Your task to perform on an android device: Open privacy settings Image 0: 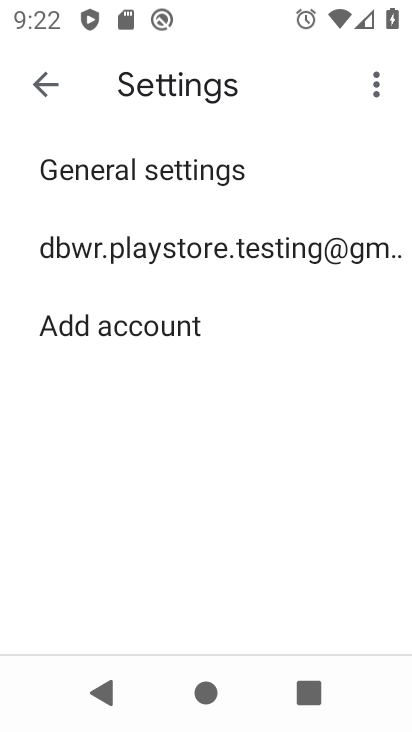
Step 0: drag from (373, 639) to (221, 131)
Your task to perform on an android device: Open privacy settings Image 1: 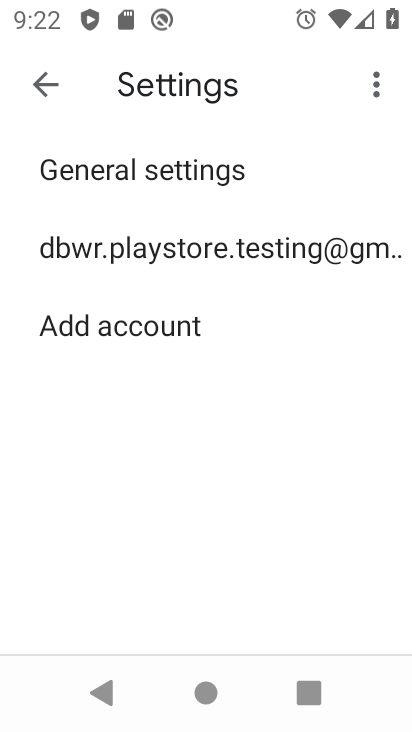
Step 1: click (33, 94)
Your task to perform on an android device: Open privacy settings Image 2: 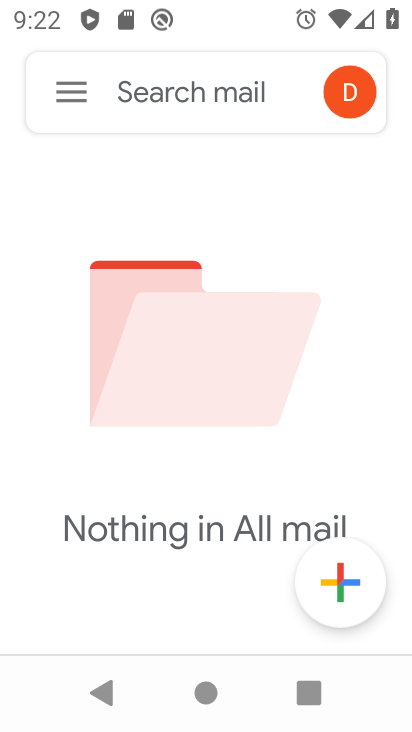
Step 2: press back button
Your task to perform on an android device: Open privacy settings Image 3: 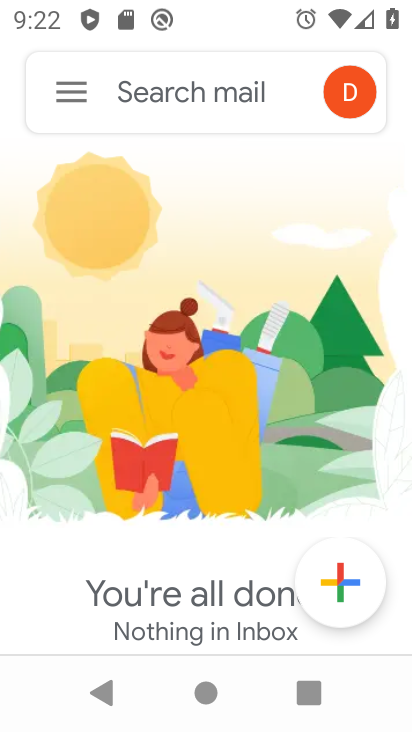
Step 3: press back button
Your task to perform on an android device: Open privacy settings Image 4: 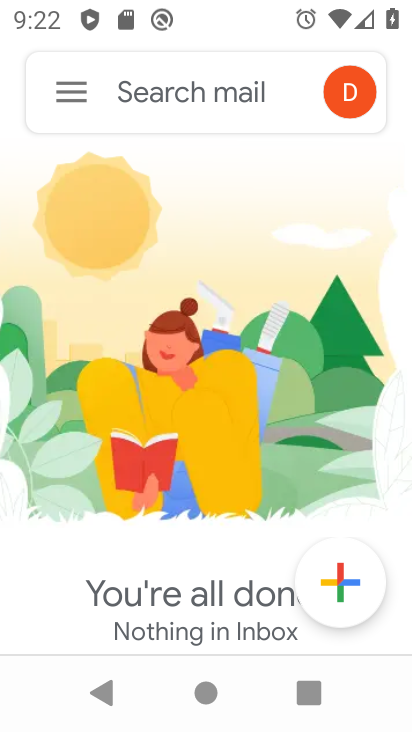
Step 4: press back button
Your task to perform on an android device: Open privacy settings Image 5: 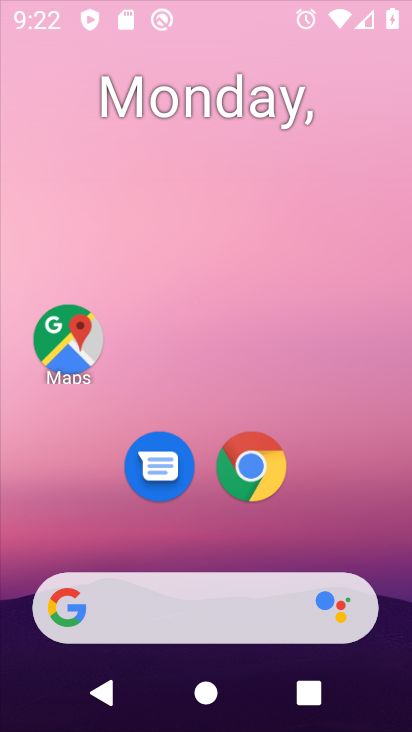
Step 5: press back button
Your task to perform on an android device: Open privacy settings Image 6: 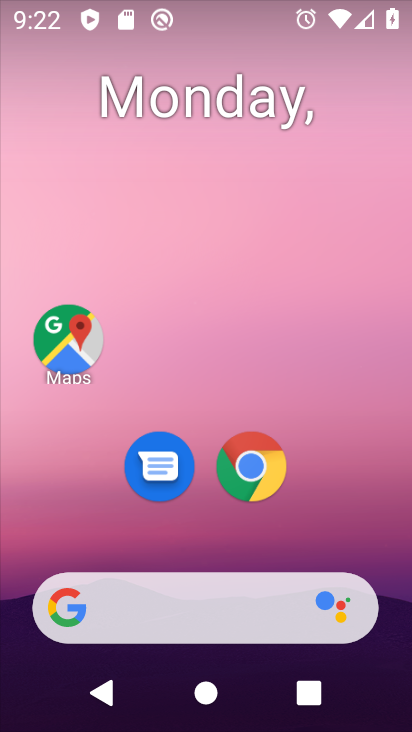
Step 6: press back button
Your task to perform on an android device: Open privacy settings Image 7: 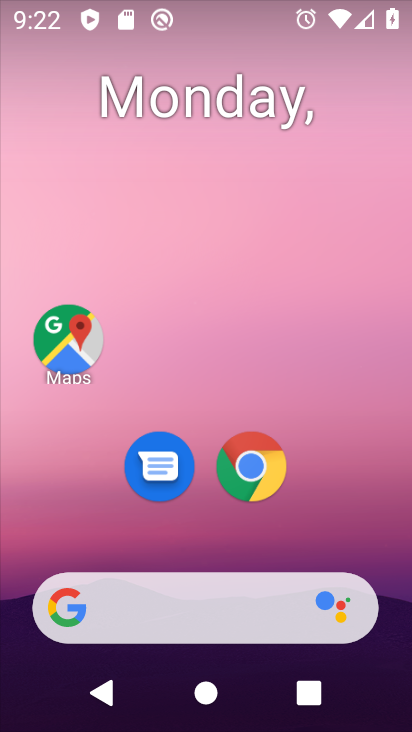
Step 7: drag from (375, 540) to (182, 0)
Your task to perform on an android device: Open privacy settings Image 8: 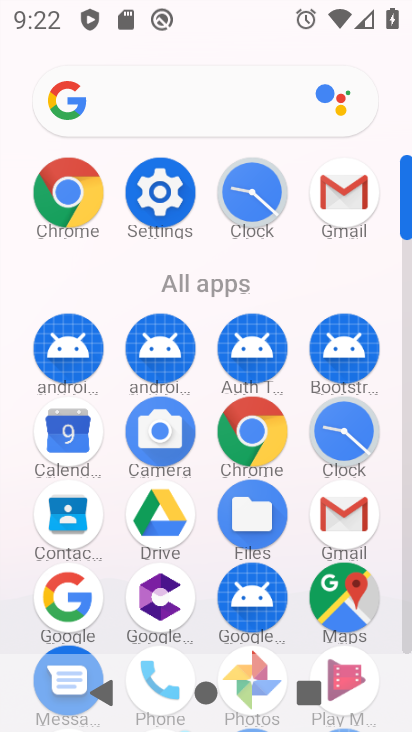
Step 8: click (167, 185)
Your task to perform on an android device: Open privacy settings Image 9: 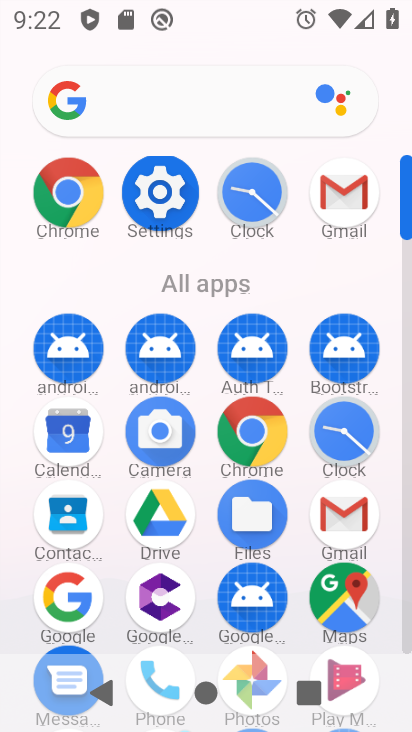
Step 9: click (167, 185)
Your task to perform on an android device: Open privacy settings Image 10: 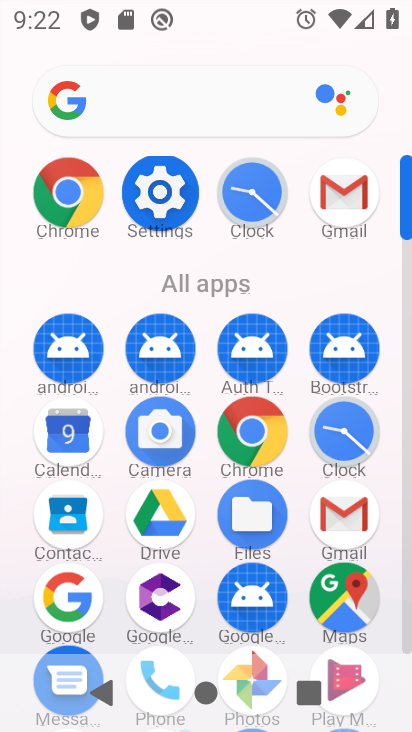
Step 10: click (167, 185)
Your task to perform on an android device: Open privacy settings Image 11: 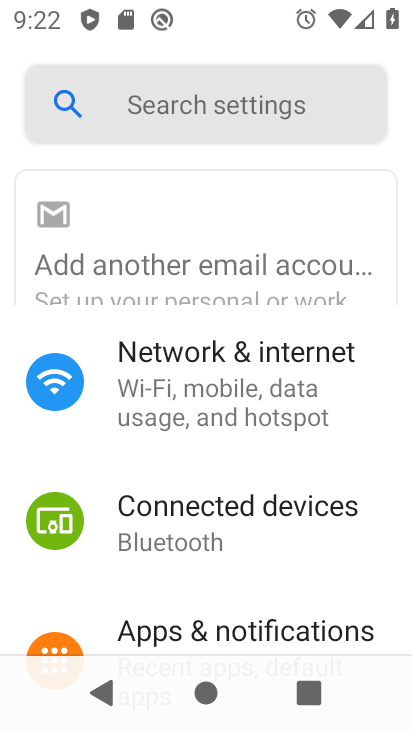
Step 11: click (167, 185)
Your task to perform on an android device: Open privacy settings Image 12: 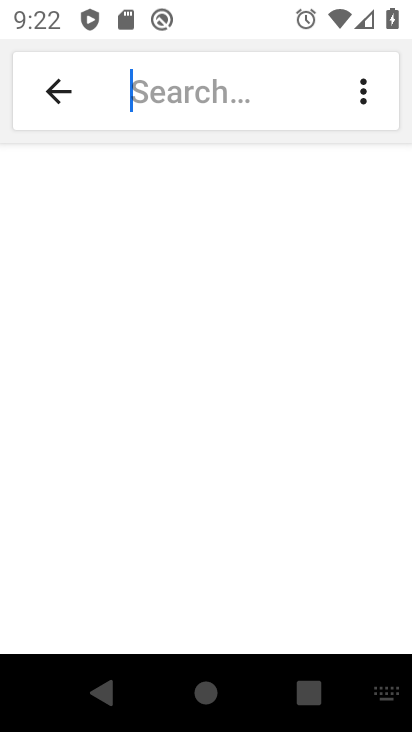
Step 12: click (40, 93)
Your task to perform on an android device: Open privacy settings Image 13: 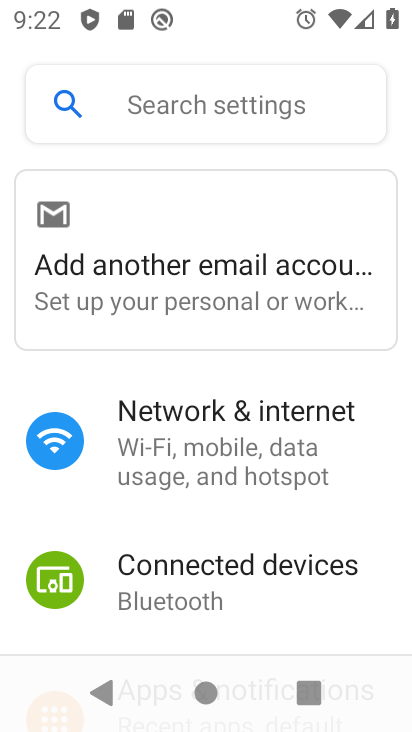
Step 13: drag from (232, 540) to (232, 206)
Your task to perform on an android device: Open privacy settings Image 14: 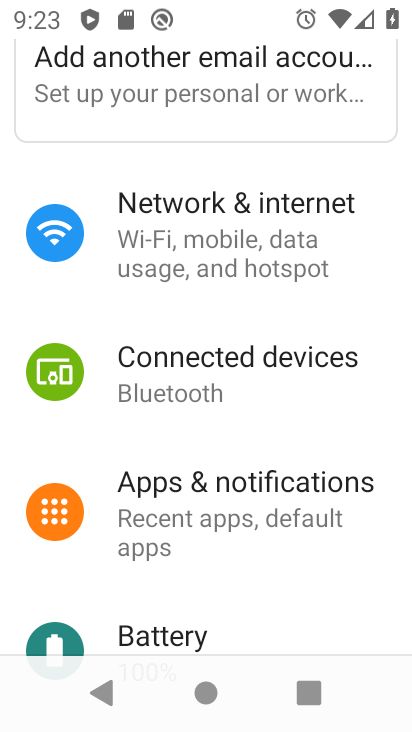
Step 14: drag from (198, 586) to (196, 79)
Your task to perform on an android device: Open privacy settings Image 15: 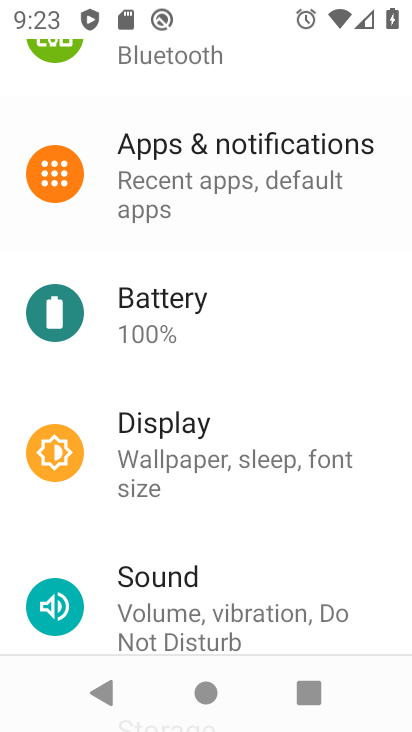
Step 15: drag from (287, 469) to (256, 269)
Your task to perform on an android device: Open privacy settings Image 16: 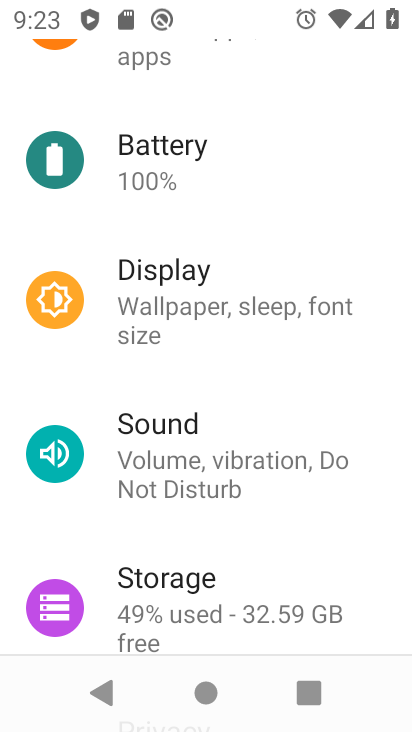
Step 16: drag from (207, 439) to (196, 132)
Your task to perform on an android device: Open privacy settings Image 17: 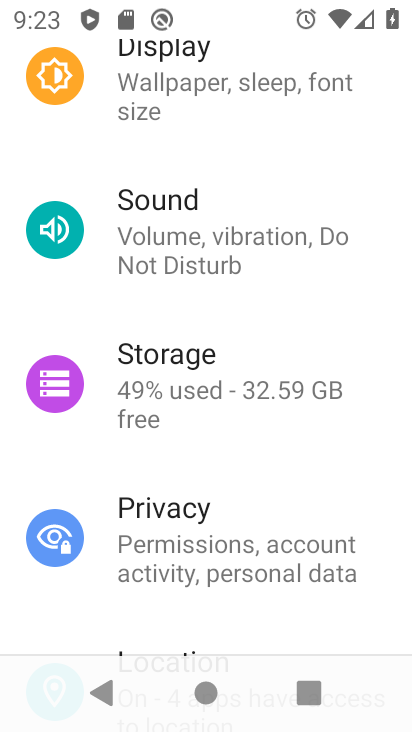
Step 17: click (235, 154)
Your task to perform on an android device: Open privacy settings Image 18: 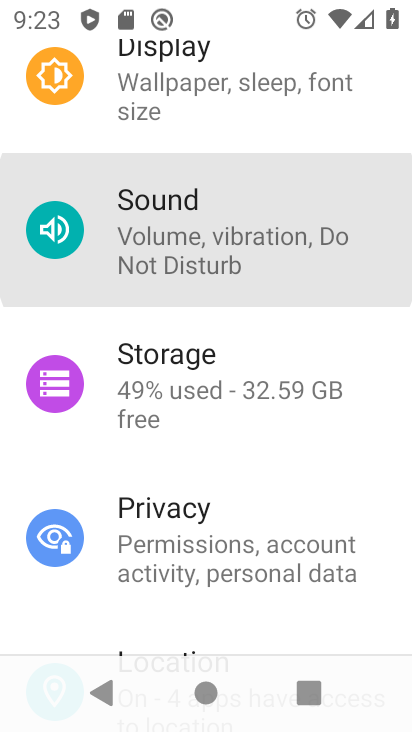
Step 18: drag from (262, 418) to (244, 142)
Your task to perform on an android device: Open privacy settings Image 19: 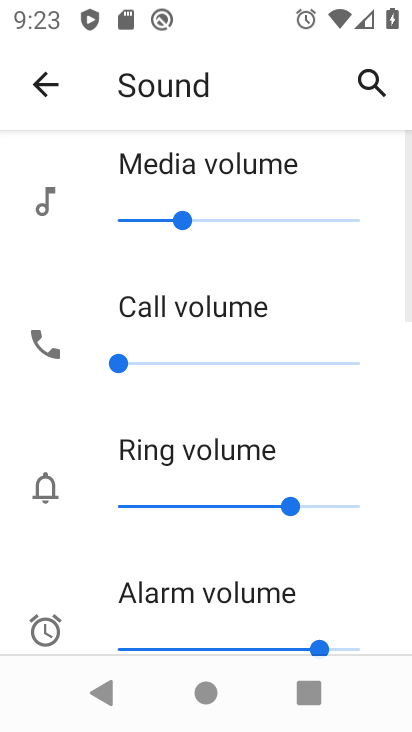
Step 19: click (49, 95)
Your task to perform on an android device: Open privacy settings Image 20: 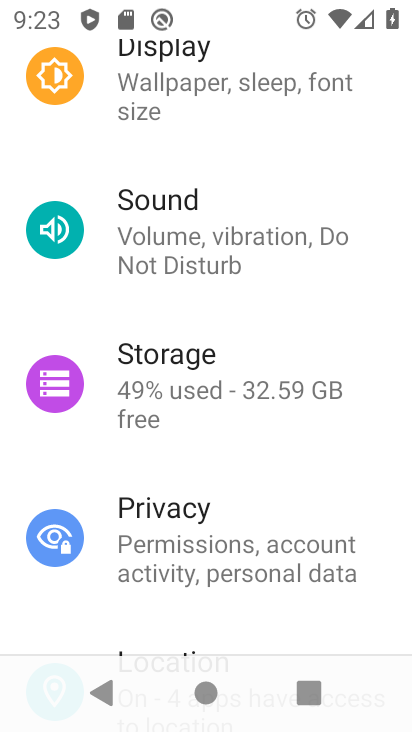
Step 20: click (159, 533)
Your task to perform on an android device: Open privacy settings Image 21: 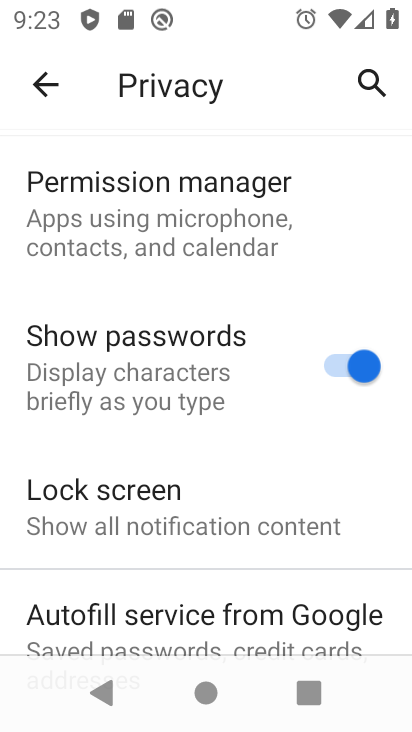
Step 21: task complete